Your task to perform on an android device: clear history in the chrome app Image 0: 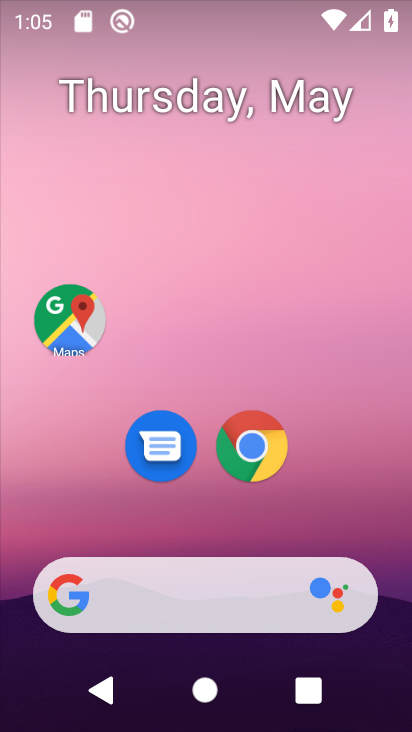
Step 0: click (257, 442)
Your task to perform on an android device: clear history in the chrome app Image 1: 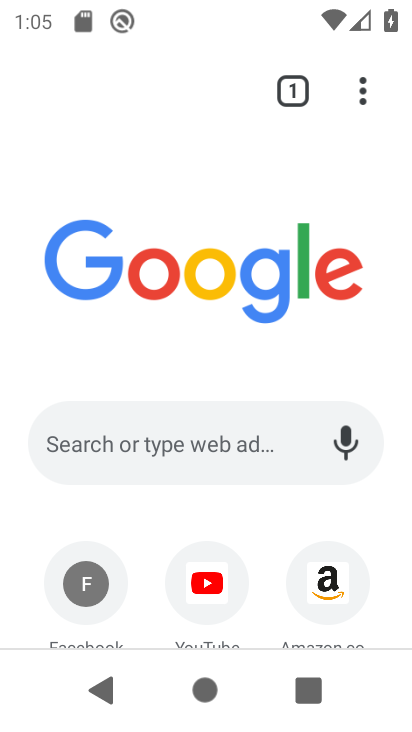
Step 1: click (359, 94)
Your task to perform on an android device: clear history in the chrome app Image 2: 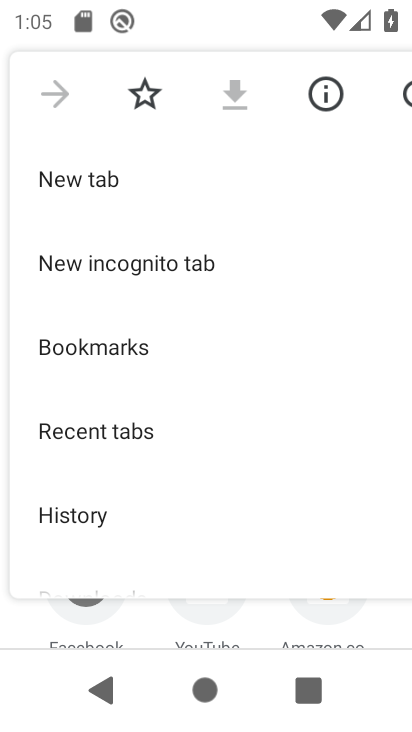
Step 2: click (65, 516)
Your task to perform on an android device: clear history in the chrome app Image 3: 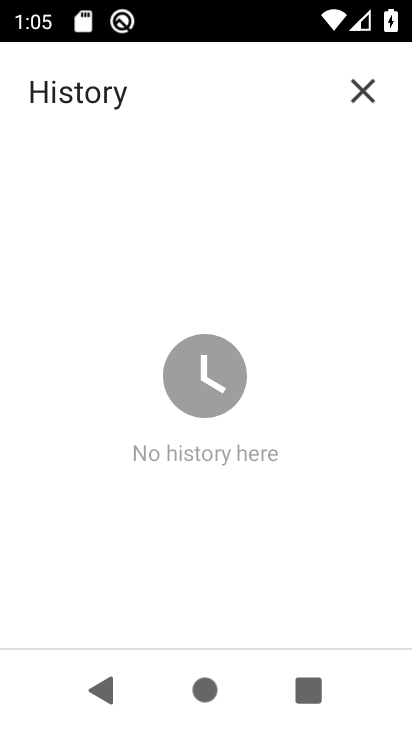
Step 3: task complete